Your task to perform on an android device: check out phone information Image 0: 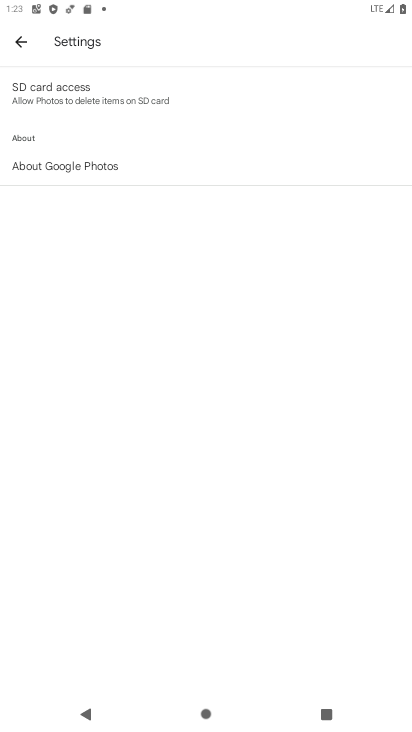
Step 0: press home button
Your task to perform on an android device: check out phone information Image 1: 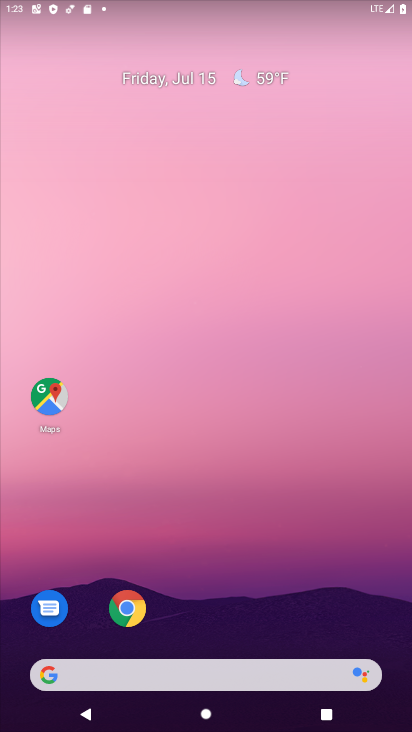
Step 1: drag from (167, 647) to (177, 239)
Your task to perform on an android device: check out phone information Image 2: 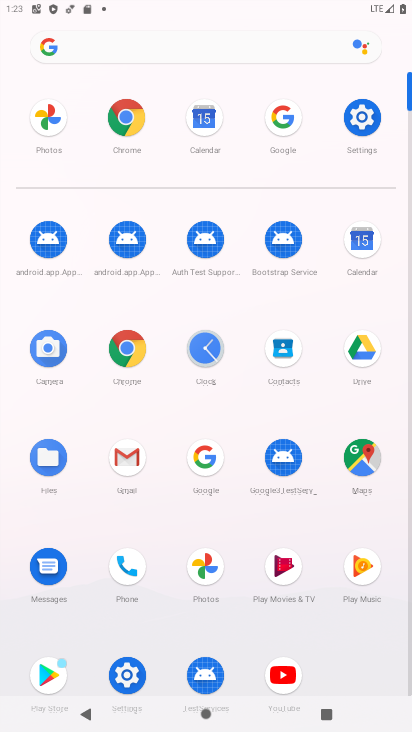
Step 2: click (125, 562)
Your task to perform on an android device: check out phone information Image 3: 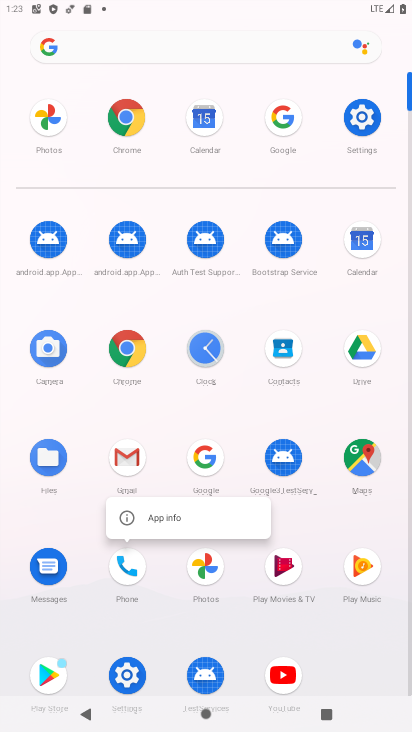
Step 3: click (148, 516)
Your task to perform on an android device: check out phone information Image 4: 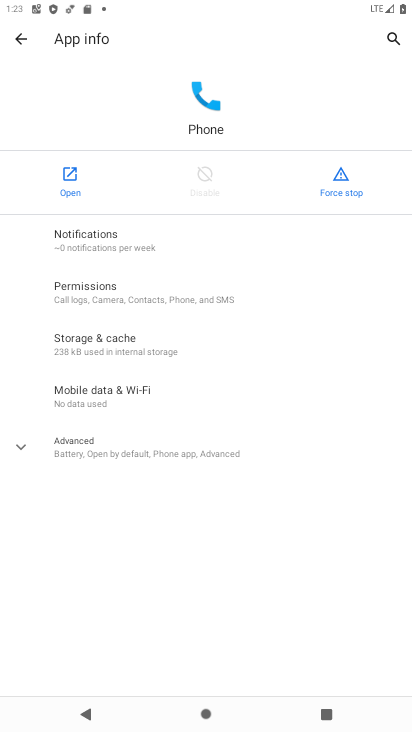
Step 4: click (103, 434)
Your task to perform on an android device: check out phone information Image 5: 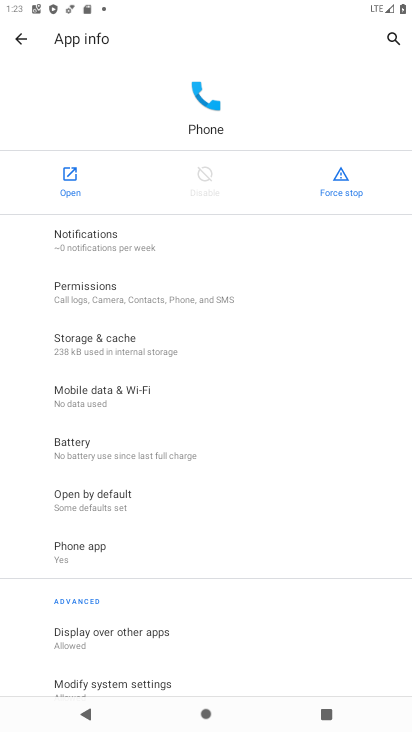
Step 5: task complete